Your task to perform on an android device: What's on my calendar tomorrow? Image 0: 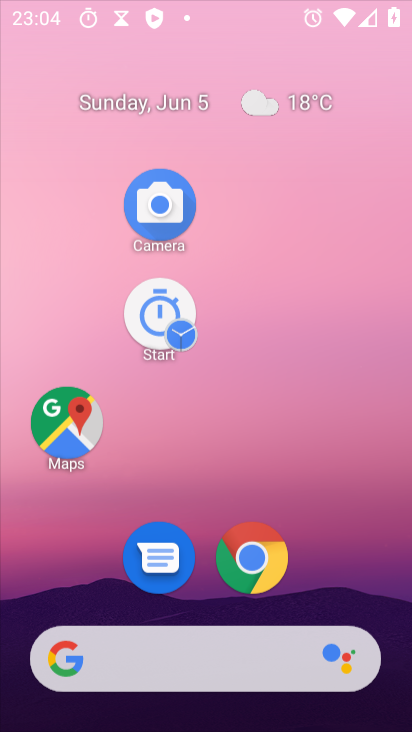
Step 0: press back button
Your task to perform on an android device: What's on my calendar tomorrow? Image 1: 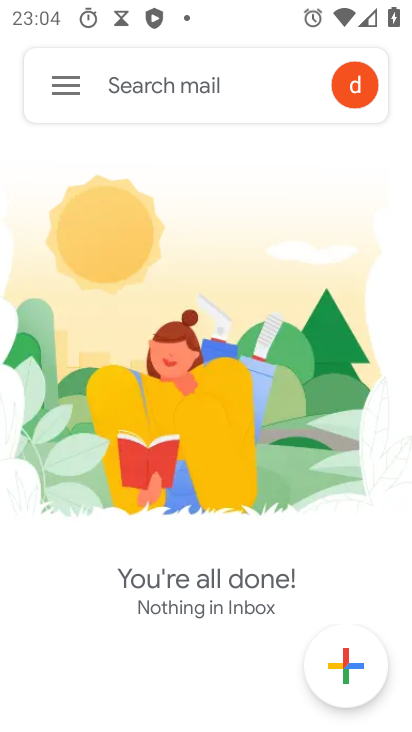
Step 1: drag from (281, 710) to (191, 140)
Your task to perform on an android device: What's on my calendar tomorrow? Image 2: 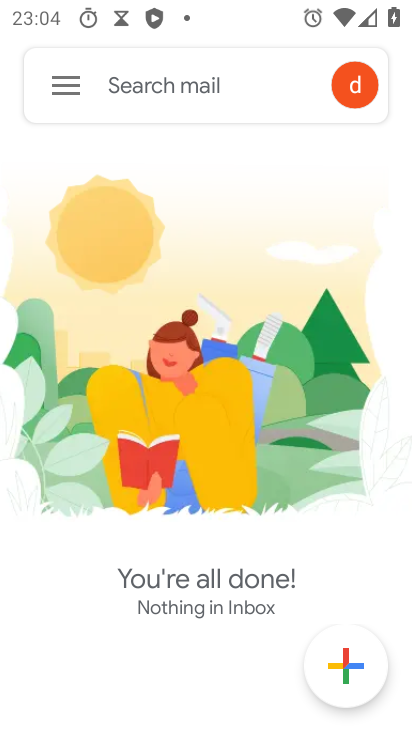
Step 2: press home button
Your task to perform on an android device: What's on my calendar tomorrow? Image 3: 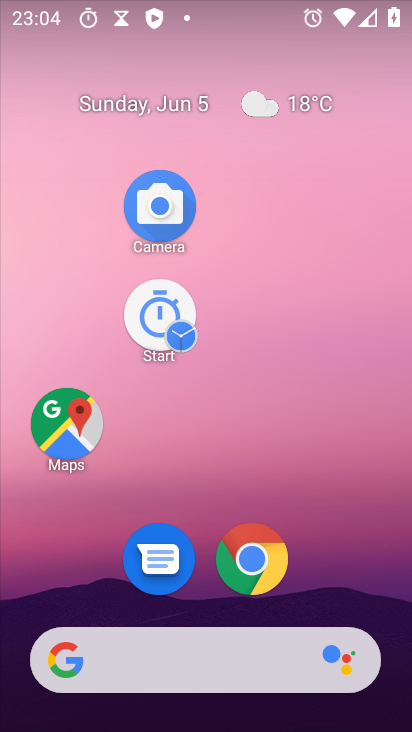
Step 3: drag from (170, 546) to (75, 117)
Your task to perform on an android device: What's on my calendar tomorrow? Image 4: 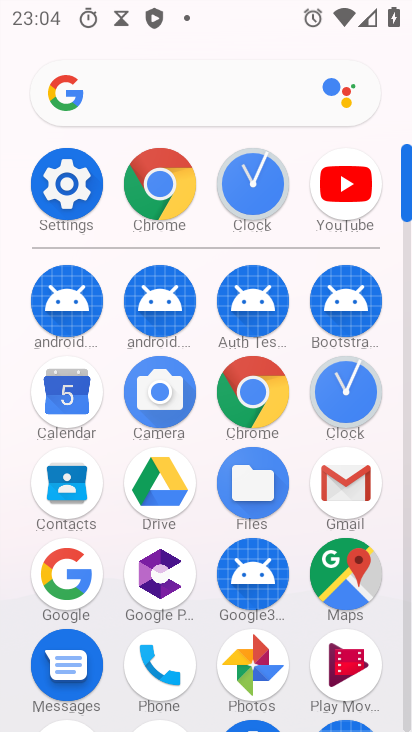
Step 4: click (68, 389)
Your task to perform on an android device: What's on my calendar tomorrow? Image 5: 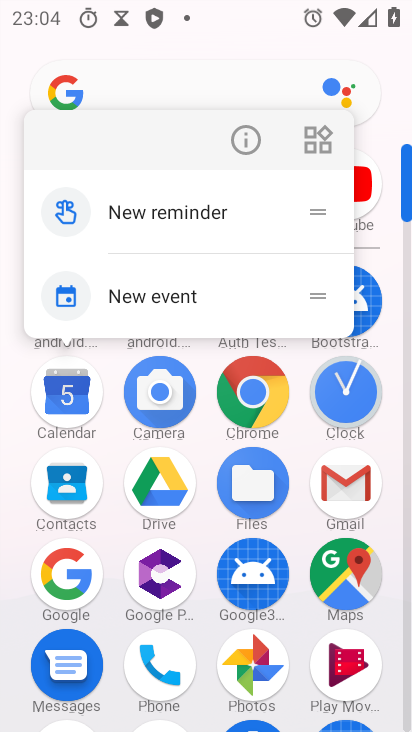
Step 5: click (64, 367)
Your task to perform on an android device: What's on my calendar tomorrow? Image 6: 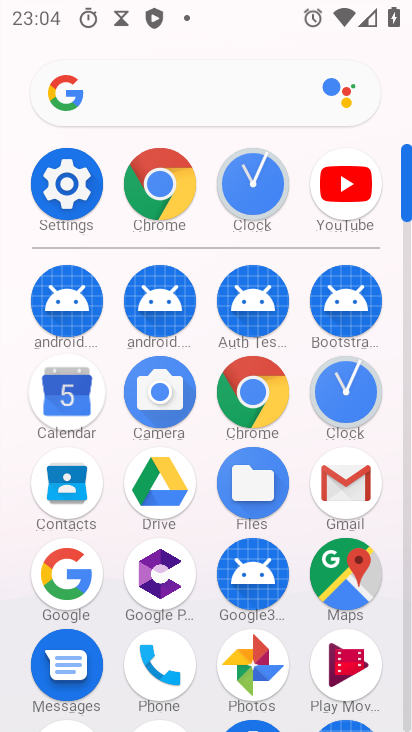
Step 6: click (69, 382)
Your task to perform on an android device: What's on my calendar tomorrow? Image 7: 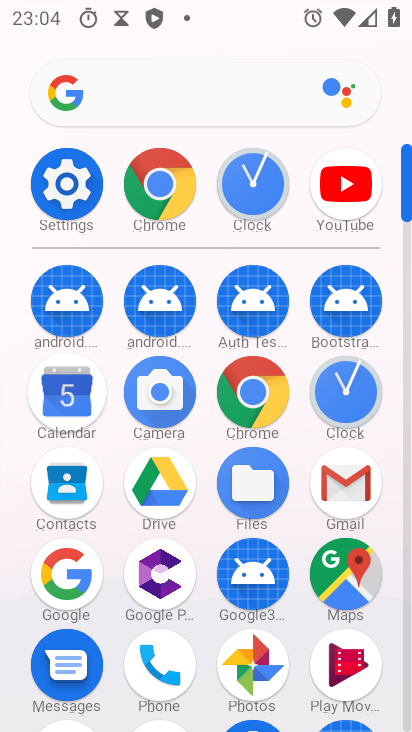
Step 7: click (71, 386)
Your task to perform on an android device: What's on my calendar tomorrow? Image 8: 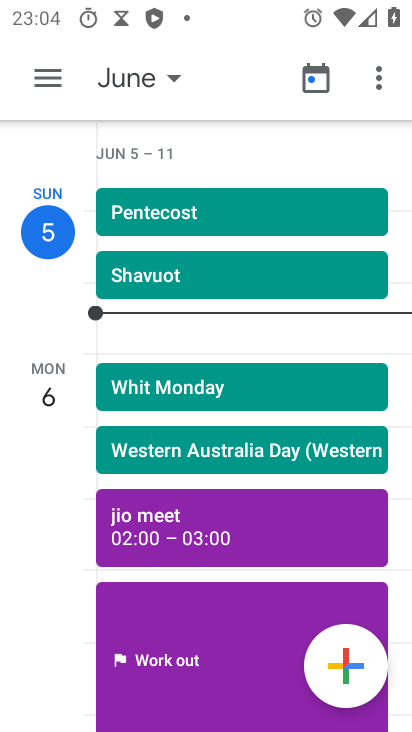
Step 8: click (67, 385)
Your task to perform on an android device: What's on my calendar tomorrow? Image 9: 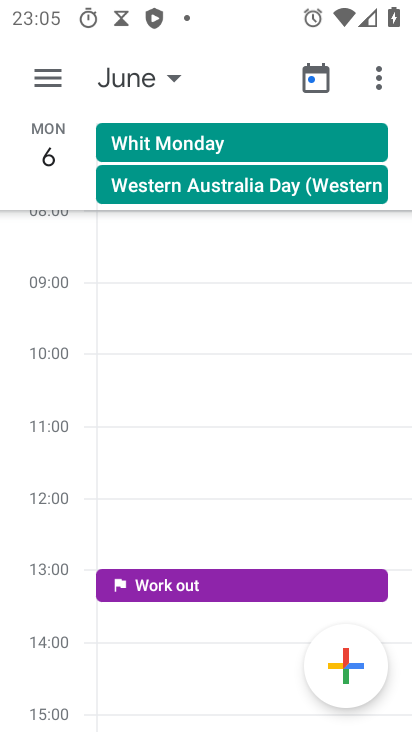
Step 9: click (164, 80)
Your task to perform on an android device: What's on my calendar tomorrow? Image 10: 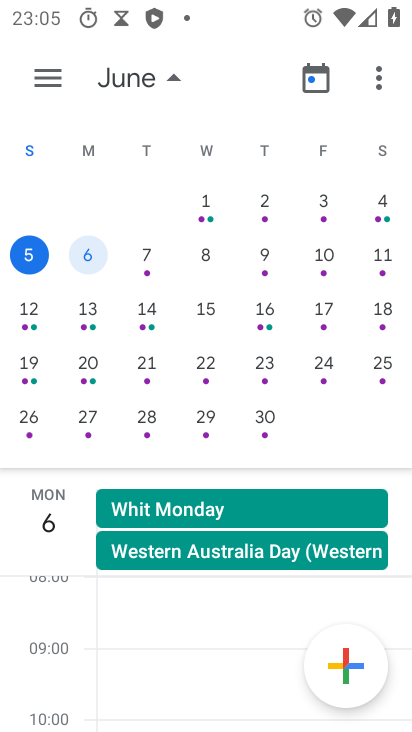
Step 10: click (137, 251)
Your task to perform on an android device: What's on my calendar tomorrow? Image 11: 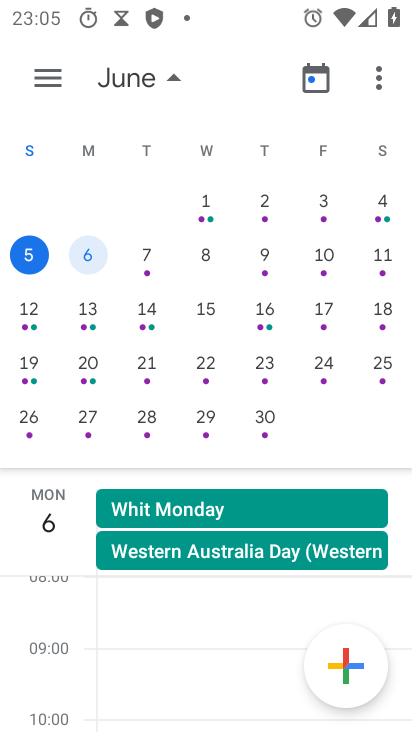
Step 11: click (137, 251)
Your task to perform on an android device: What's on my calendar tomorrow? Image 12: 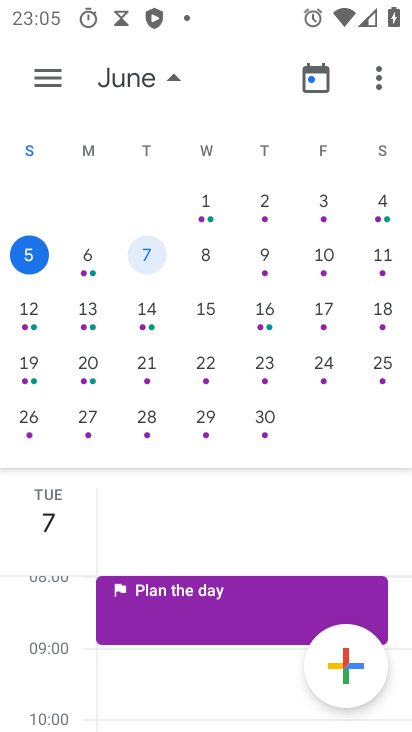
Step 12: click (132, 254)
Your task to perform on an android device: What's on my calendar tomorrow? Image 13: 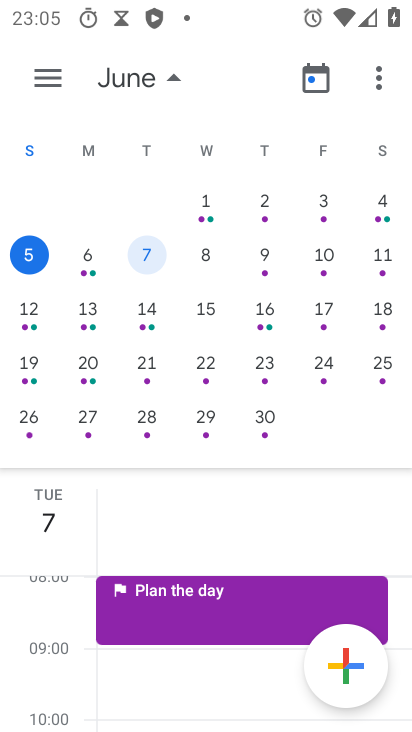
Step 13: click (129, 254)
Your task to perform on an android device: What's on my calendar tomorrow? Image 14: 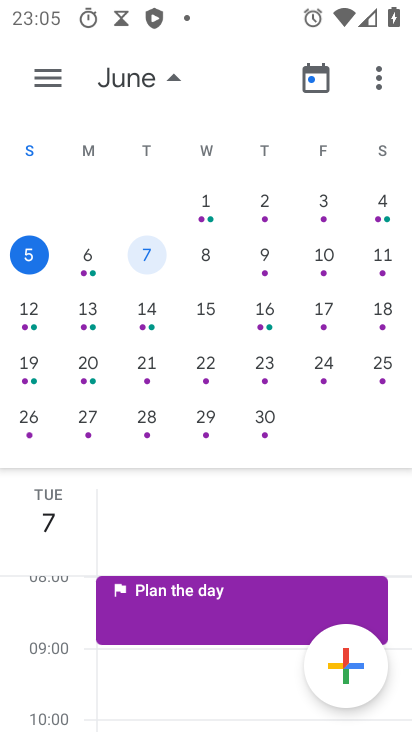
Step 14: task complete